Your task to perform on an android device: Open the map Image 0: 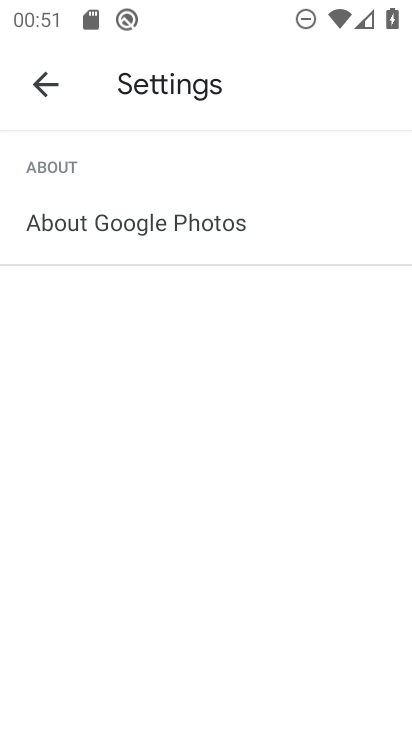
Step 0: press home button
Your task to perform on an android device: Open the map Image 1: 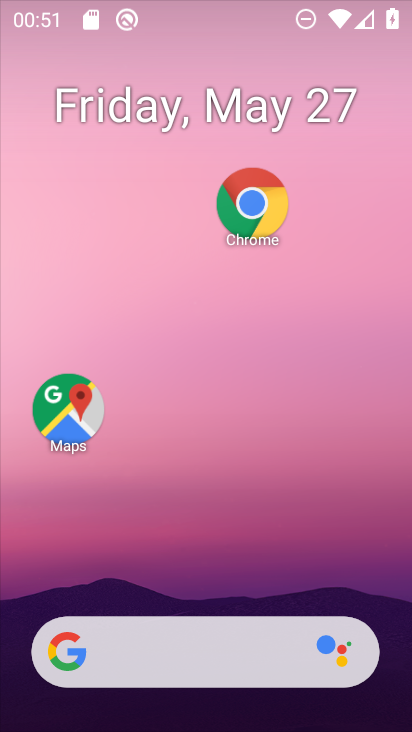
Step 1: drag from (246, 654) to (160, 82)
Your task to perform on an android device: Open the map Image 2: 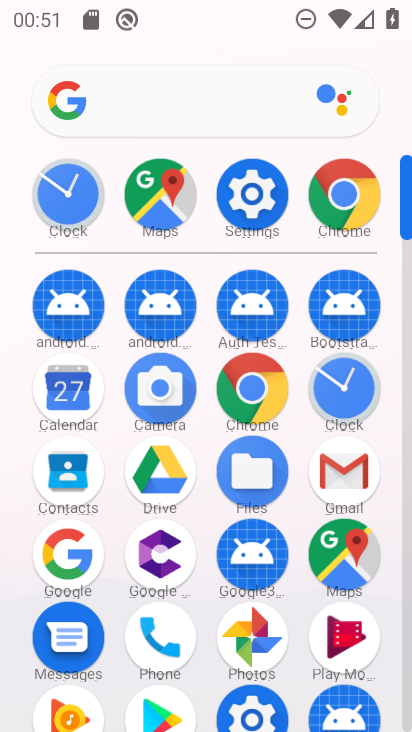
Step 2: click (337, 551)
Your task to perform on an android device: Open the map Image 3: 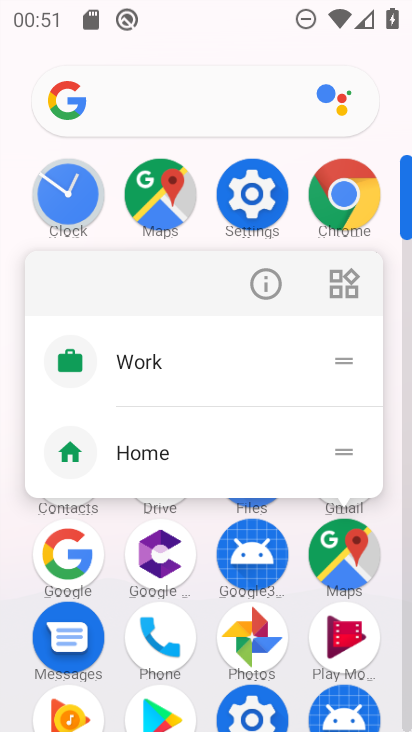
Step 3: click (247, 273)
Your task to perform on an android device: Open the map Image 4: 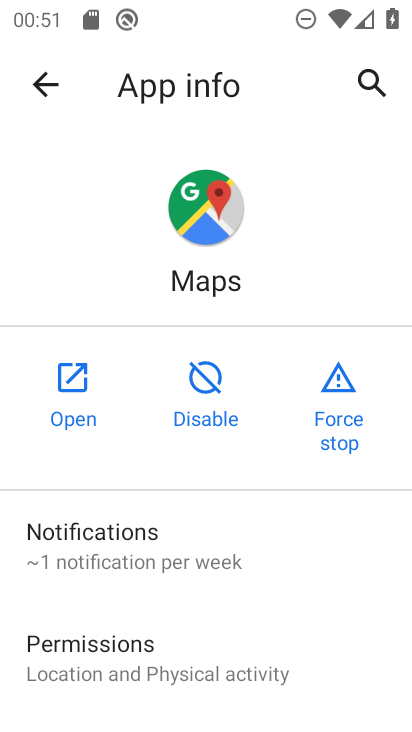
Step 4: click (68, 387)
Your task to perform on an android device: Open the map Image 5: 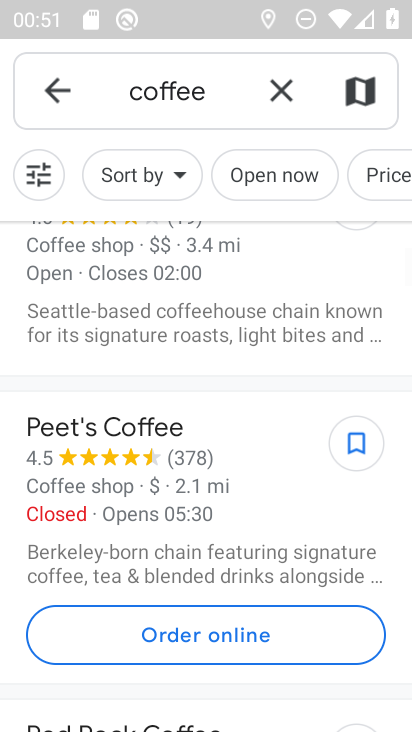
Step 5: task complete